Your task to perform on an android device: add a label to a message in the gmail app Image 0: 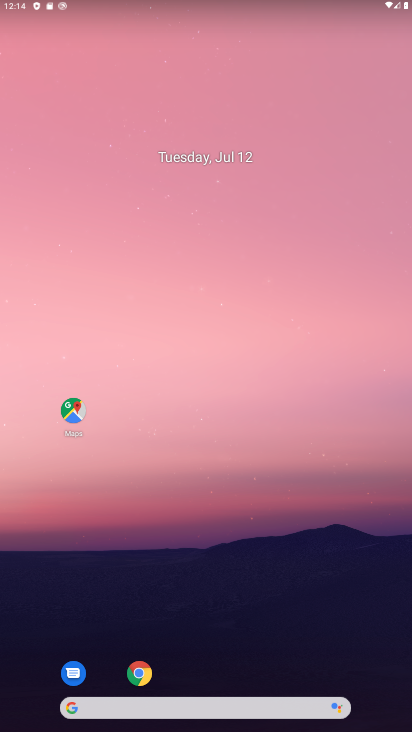
Step 0: drag from (258, 640) to (206, 41)
Your task to perform on an android device: add a label to a message in the gmail app Image 1: 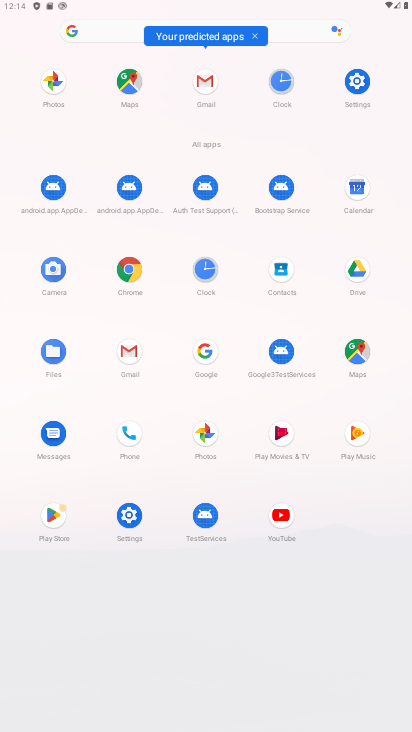
Step 1: click (217, 87)
Your task to perform on an android device: add a label to a message in the gmail app Image 2: 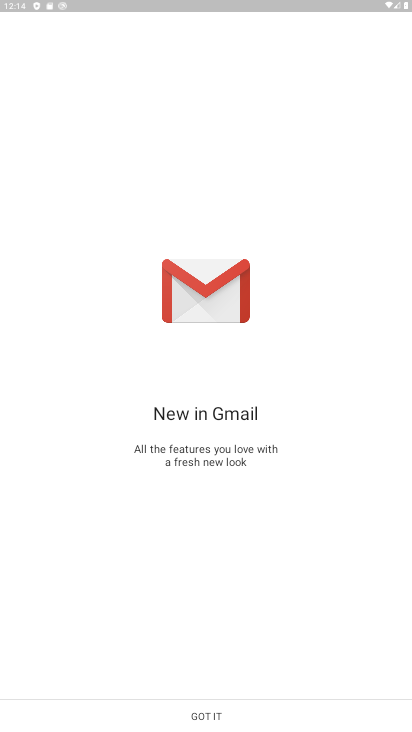
Step 2: click (223, 720)
Your task to perform on an android device: add a label to a message in the gmail app Image 3: 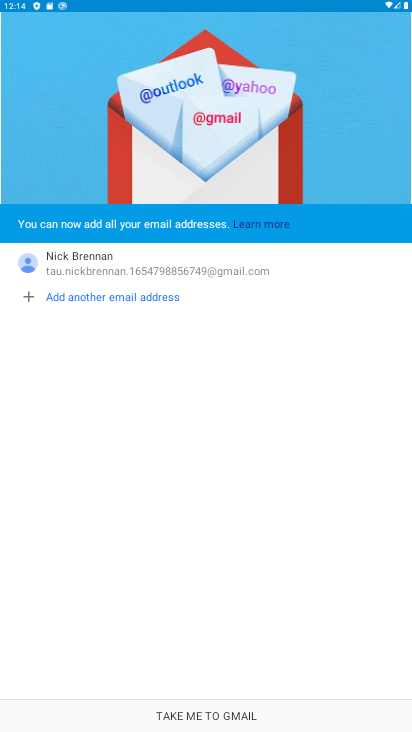
Step 3: click (223, 720)
Your task to perform on an android device: add a label to a message in the gmail app Image 4: 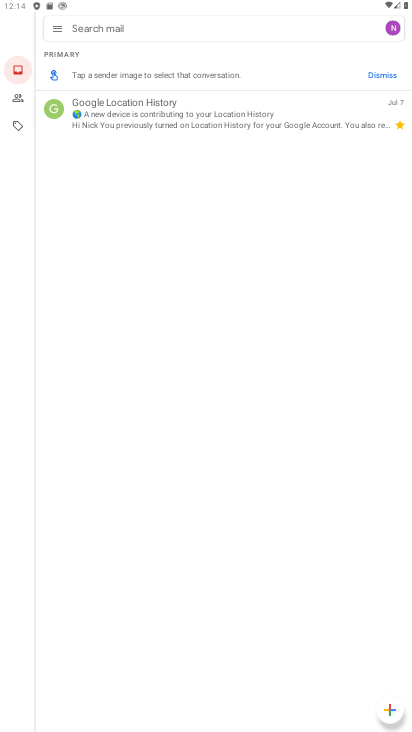
Step 4: click (309, 123)
Your task to perform on an android device: add a label to a message in the gmail app Image 5: 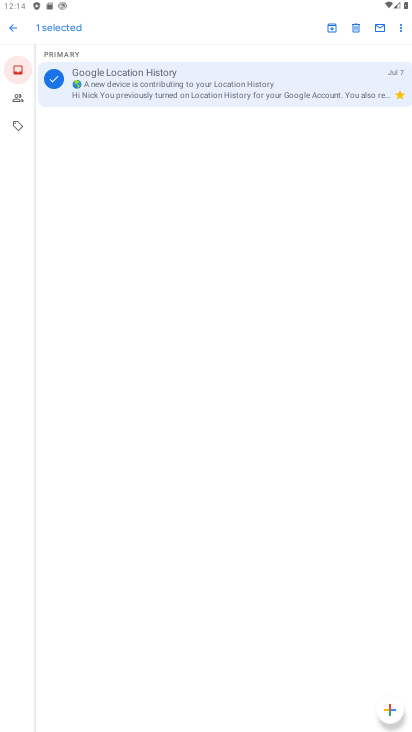
Step 5: click (399, 31)
Your task to perform on an android device: add a label to a message in the gmail app Image 6: 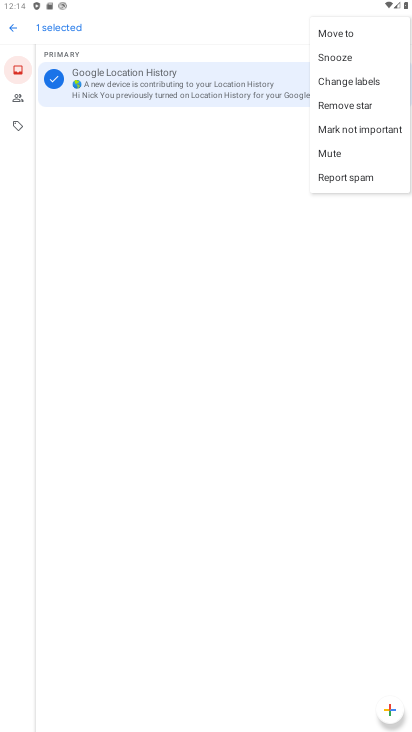
Step 6: click (369, 75)
Your task to perform on an android device: add a label to a message in the gmail app Image 7: 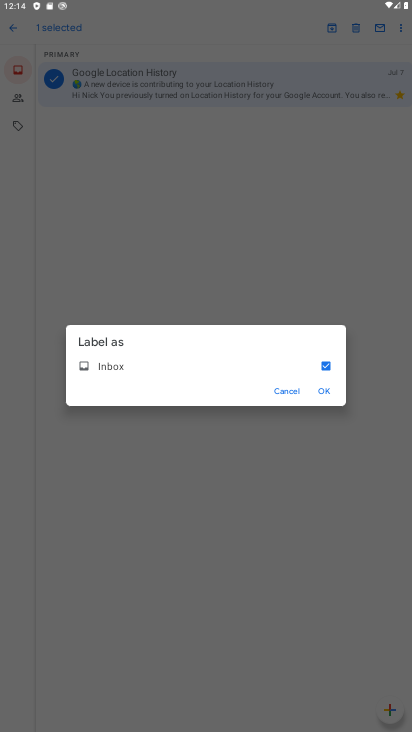
Step 7: click (324, 398)
Your task to perform on an android device: add a label to a message in the gmail app Image 8: 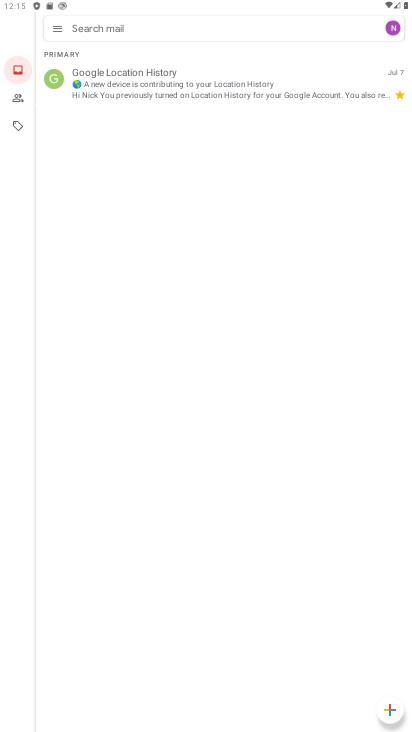
Step 8: task complete